Your task to perform on an android device: set the stopwatch Image 0: 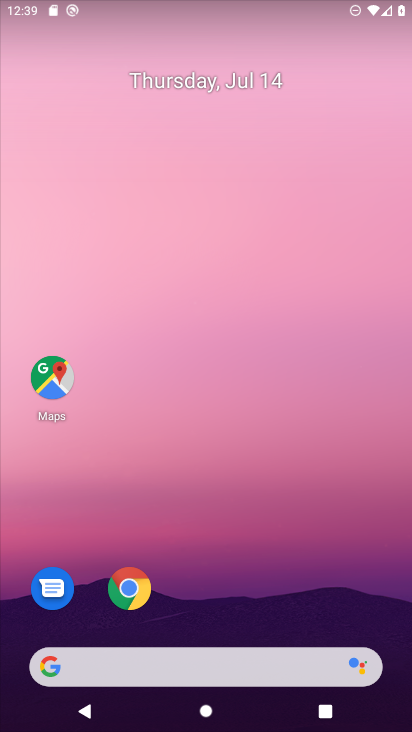
Step 0: drag from (210, 662) to (308, 165)
Your task to perform on an android device: set the stopwatch Image 1: 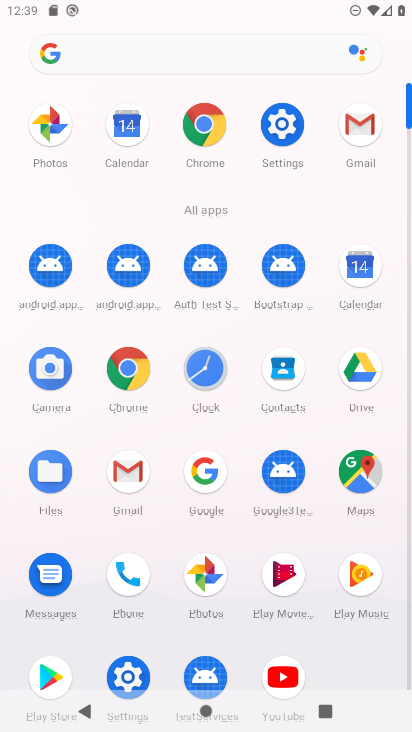
Step 1: click (203, 366)
Your task to perform on an android device: set the stopwatch Image 2: 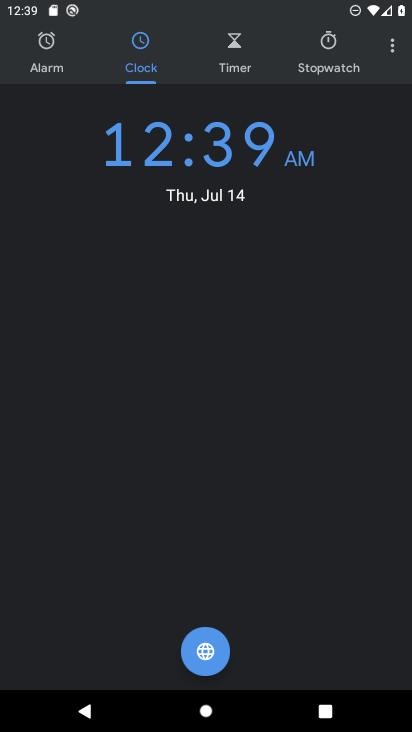
Step 2: click (330, 62)
Your task to perform on an android device: set the stopwatch Image 3: 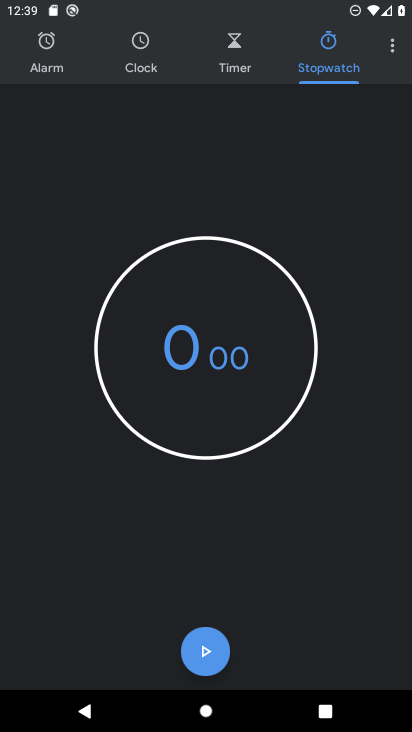
Step 3: click (204, 376)
Your task to perform on an android device: set the stopwatch Image 4: 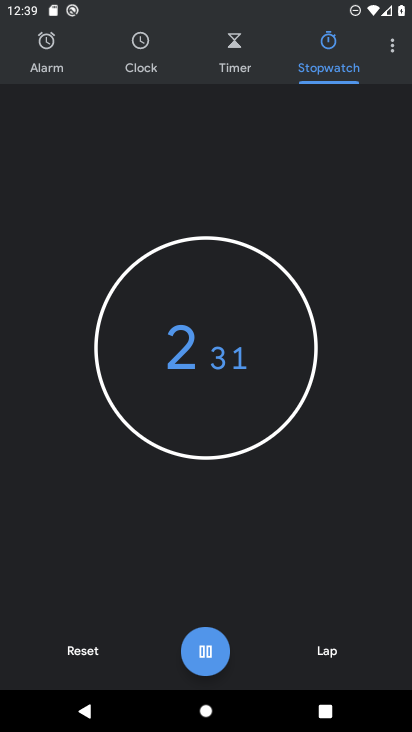
Step 4: click (201, 660)
Your task to perform on an android device: set the stopwatch Image 5: 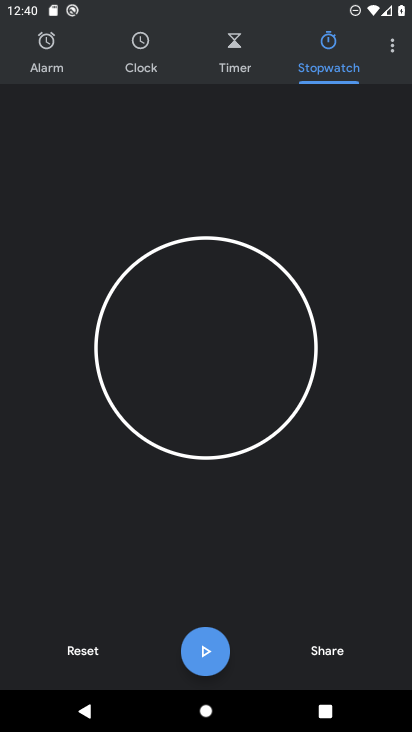
Step 5: task complete